Your task to perform on an android device: open app "Firefox Browser" Image 0: 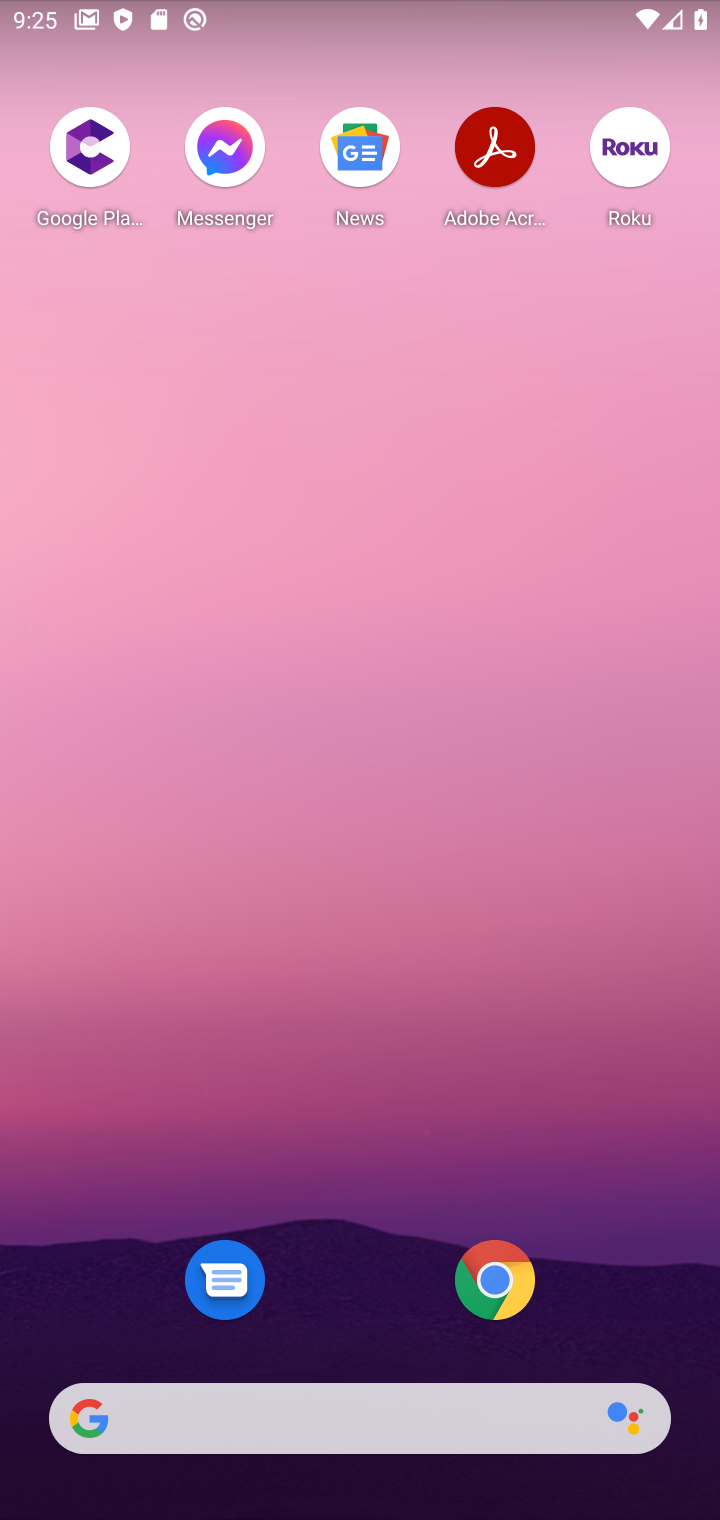
Step 0: drag from (333, 448) to (351, 383)
Your task to perform on an android device: open app "Firefox Browser" Image 1: 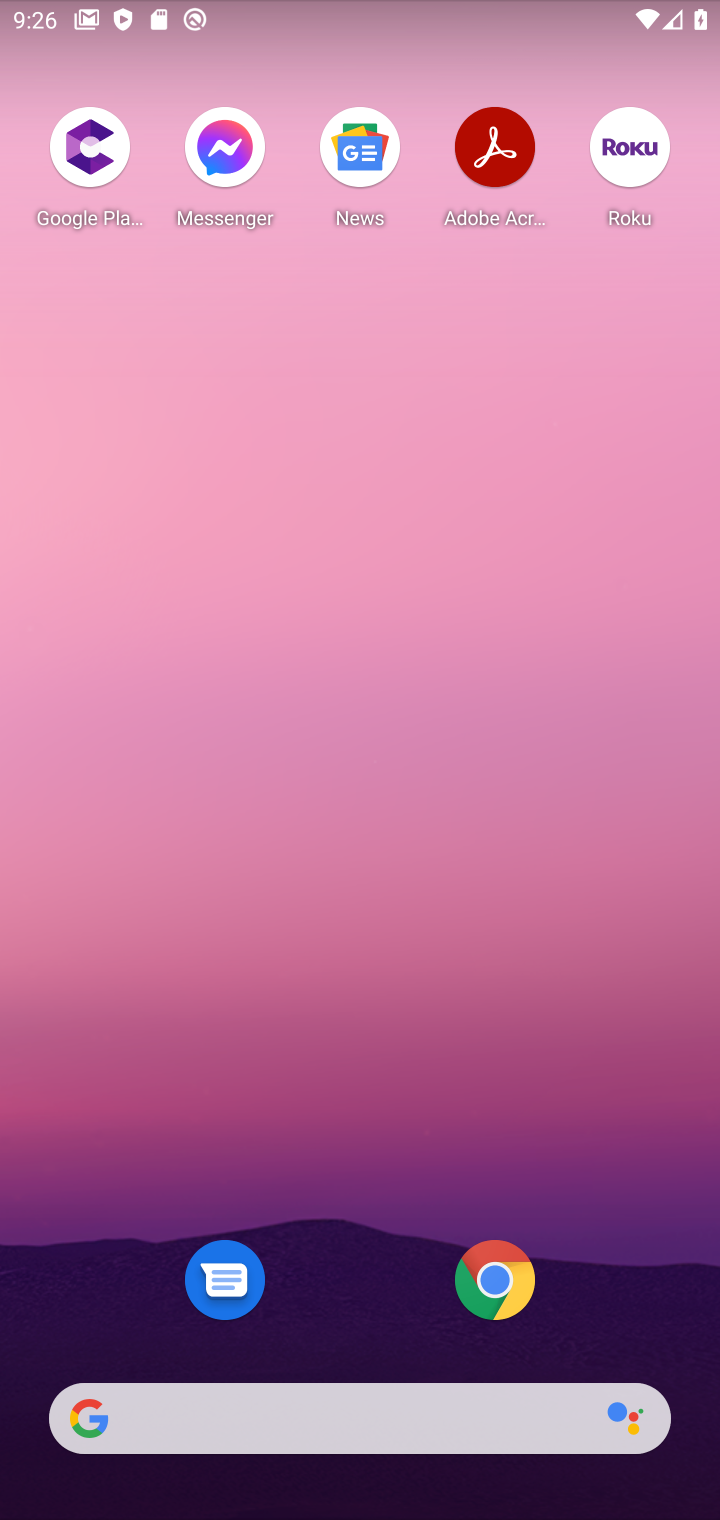
Step 1: drag from (296, 1199) to (576, 105)
Your task to perform on an android device: open app "Firefox Browser" Image 2: 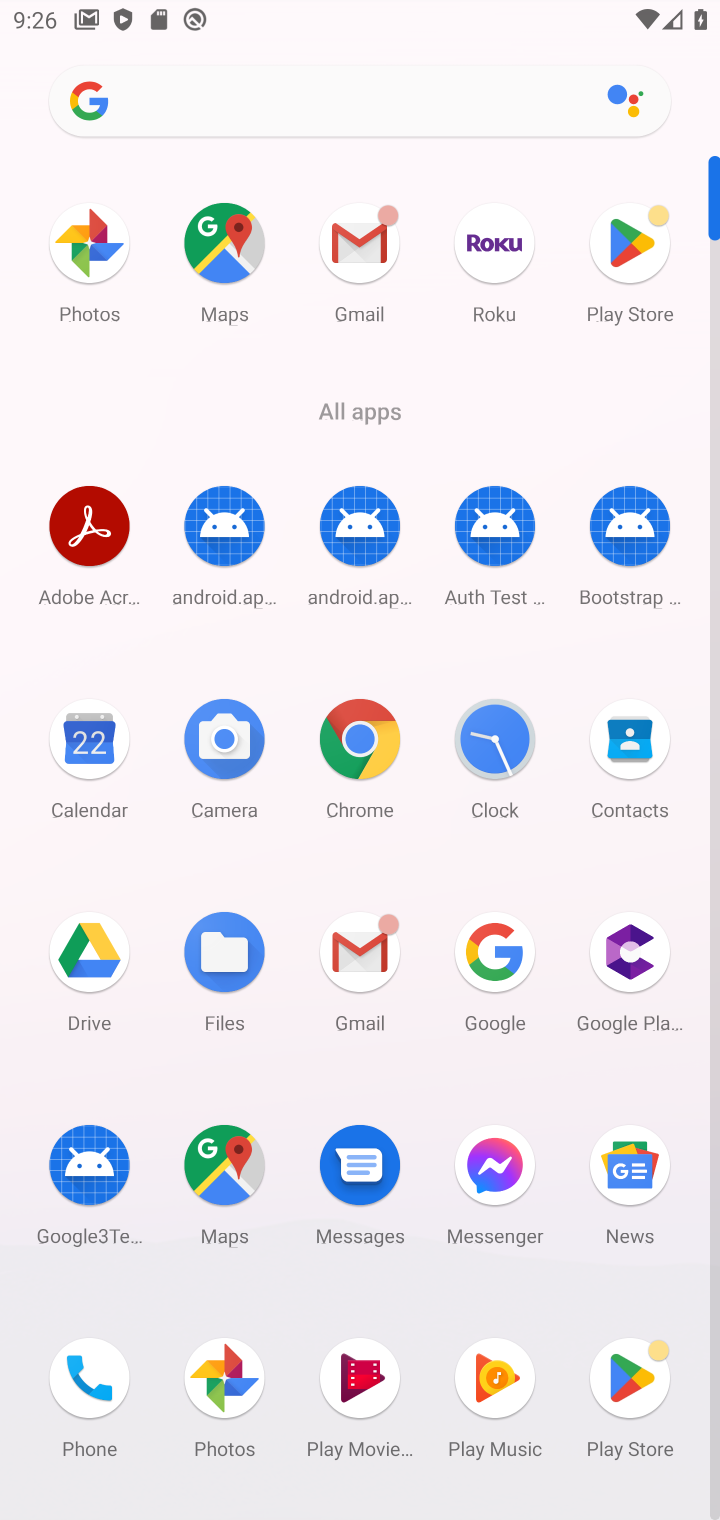
Step 2: click (633, 246)
Your task to perform on an android device: open app "Firefox Browser" Image 3: 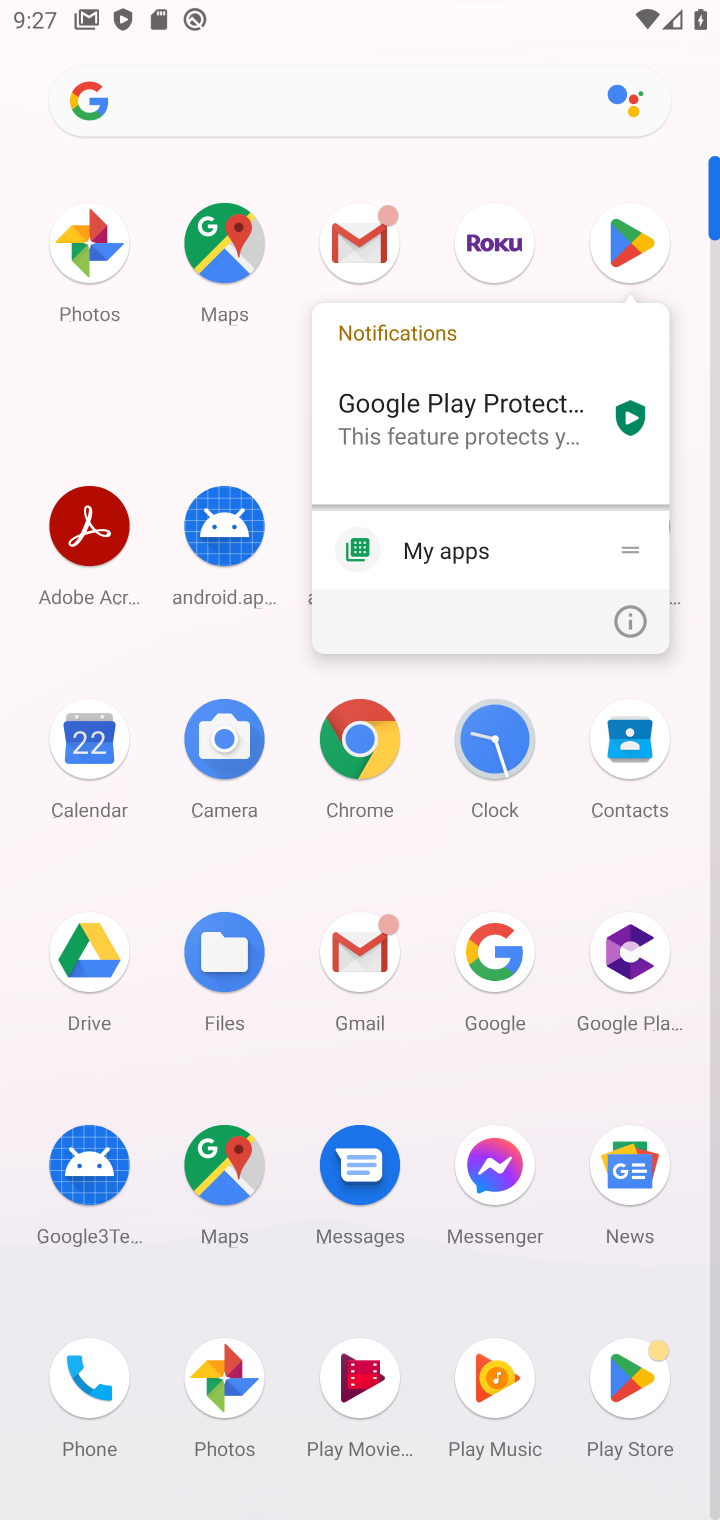
Step 3: click (633, 245)
Your task to perform on an android device: open app "Firefox Browser" Image 4: 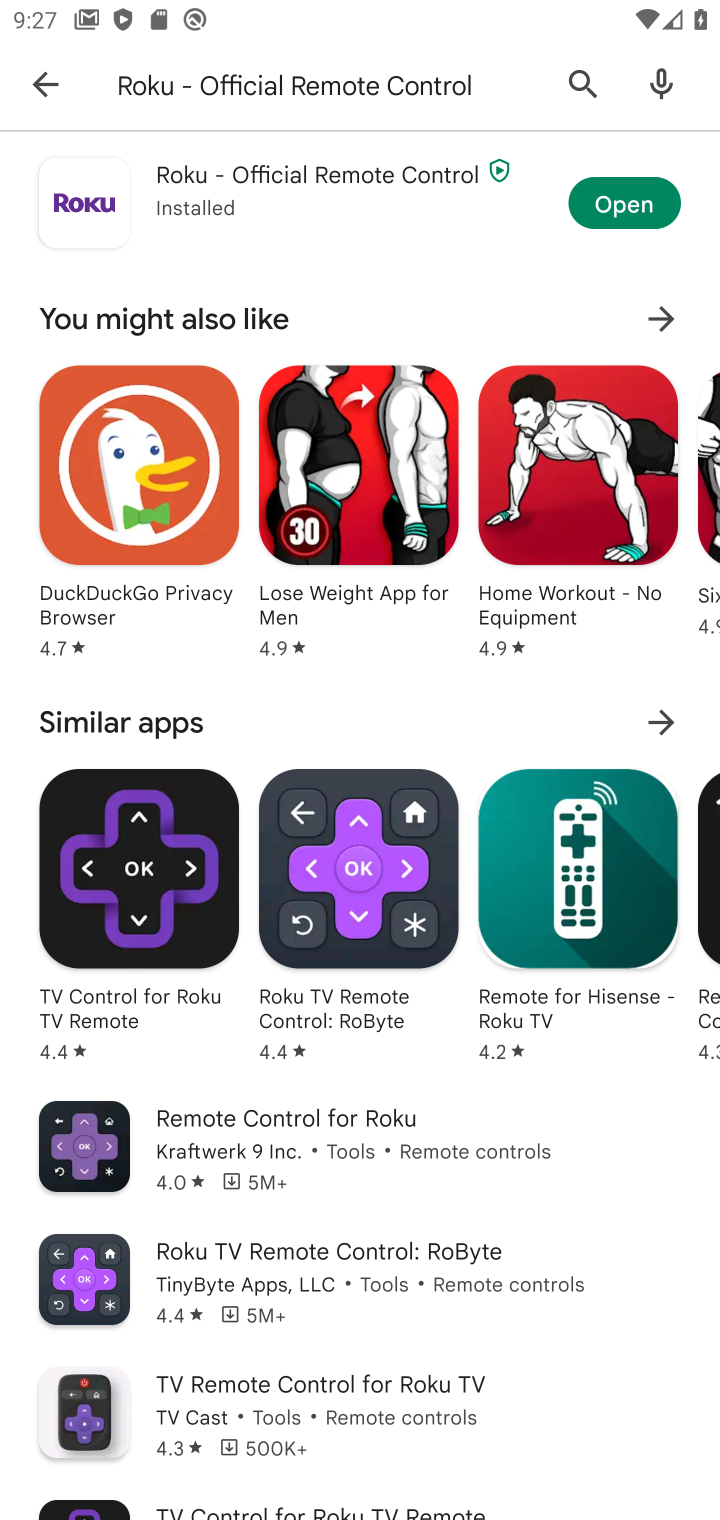
Step 4: press back button
Your task to perform on an android device: open app "Firefox Browser" Image 5: 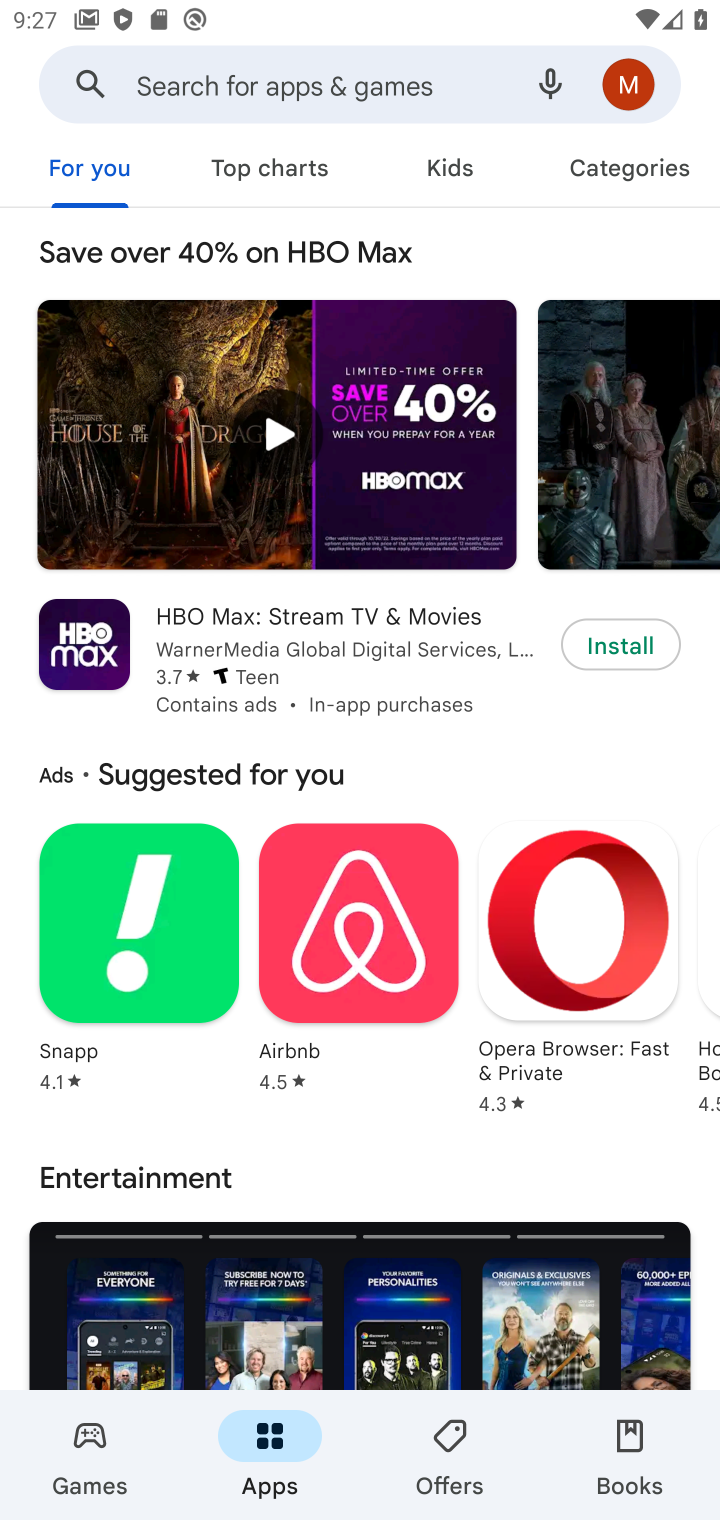
Step 5: click (373, 85)
Your task to perform on an android device: open app "Firefox Browser" Image 6: 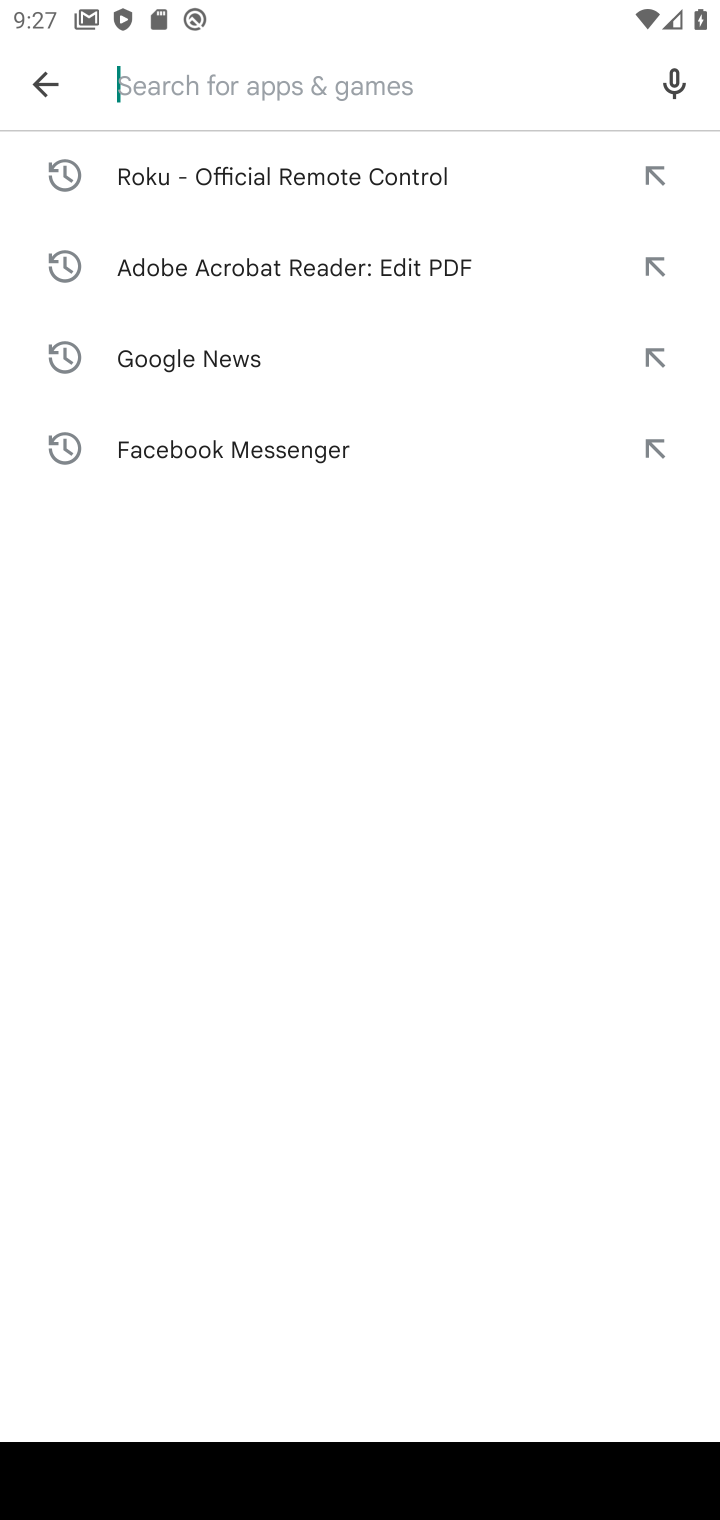
Step 6: type "Firefox Browser"
Your task to perform on an android device: open app "Firefox Browser" Image 7: 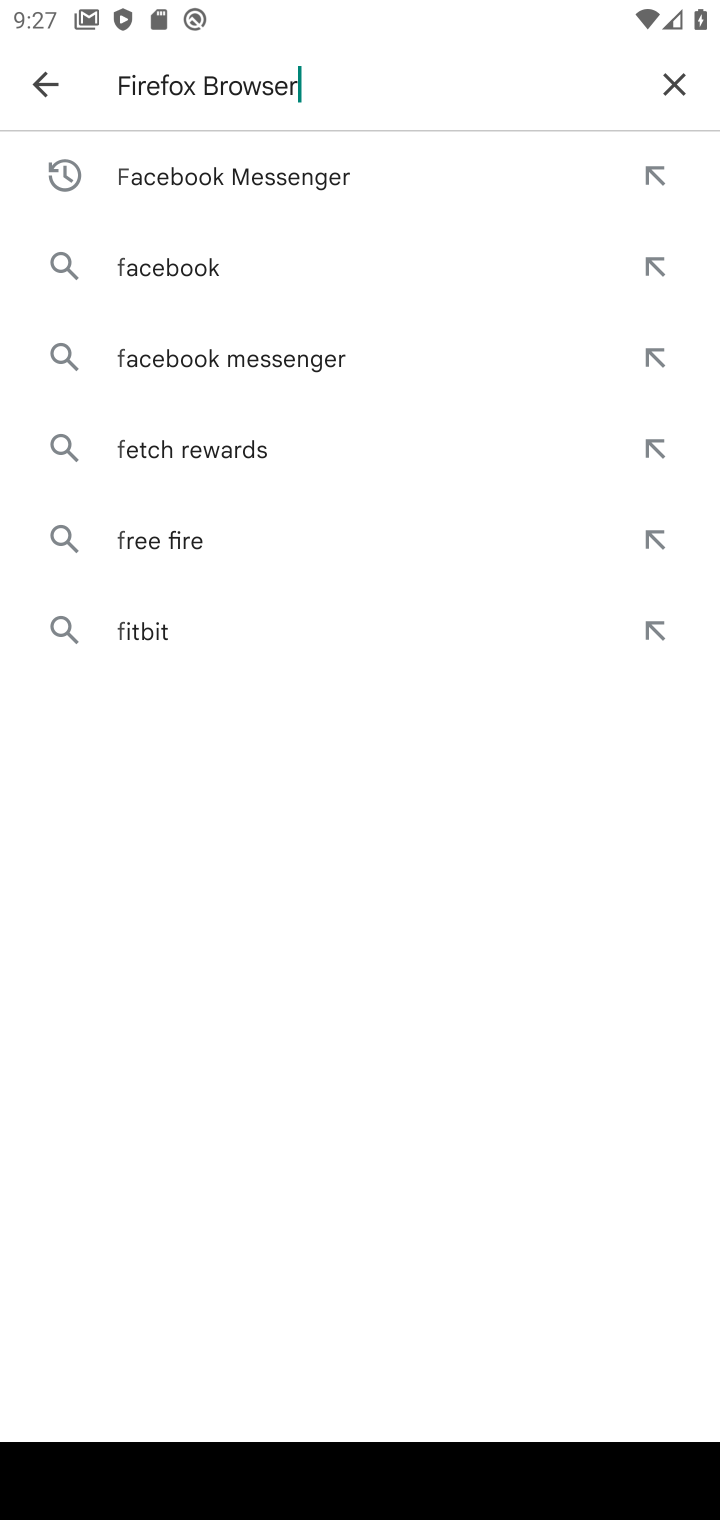
Step 7: press enter
Your task to perform on an android device: open app "Firefox Browser" Image 8: 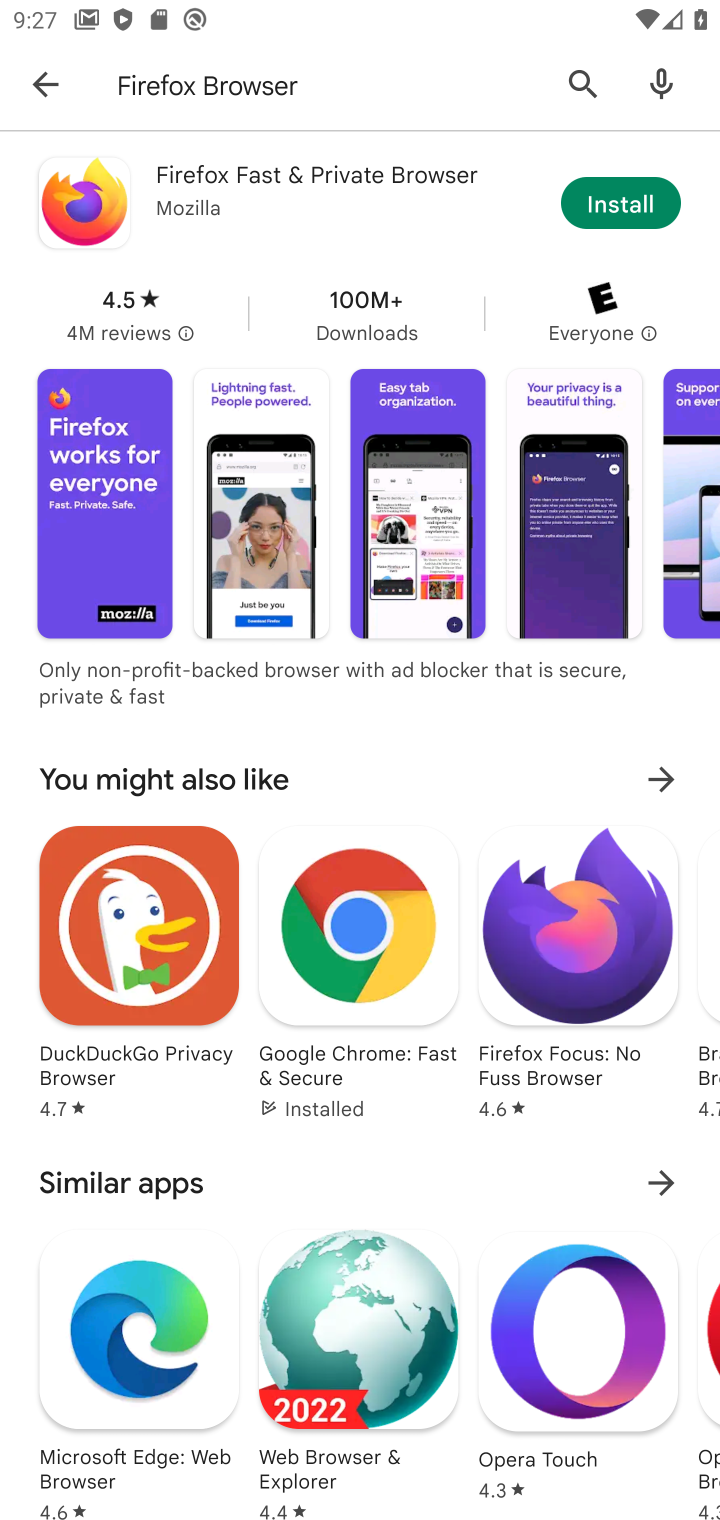
Step 8: task complete